Your task to perform on an android device: see tabs open on other devices in the chrome app Image 0: 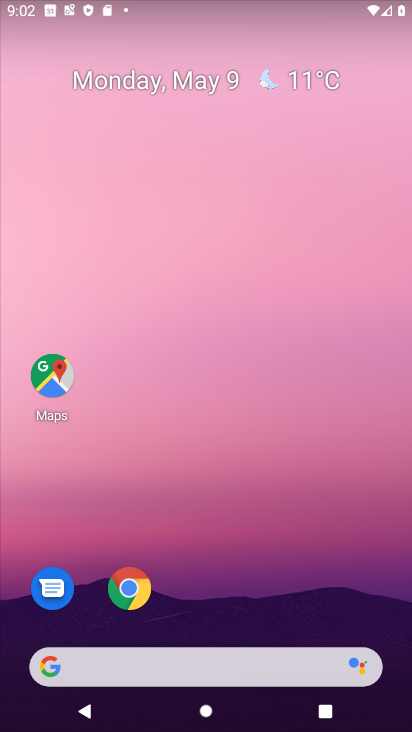
Step 0: drag from (173, 667) to (257, 148)
Your task to perform on an android device: see tabs open on other devices in the chrome app Image 1: 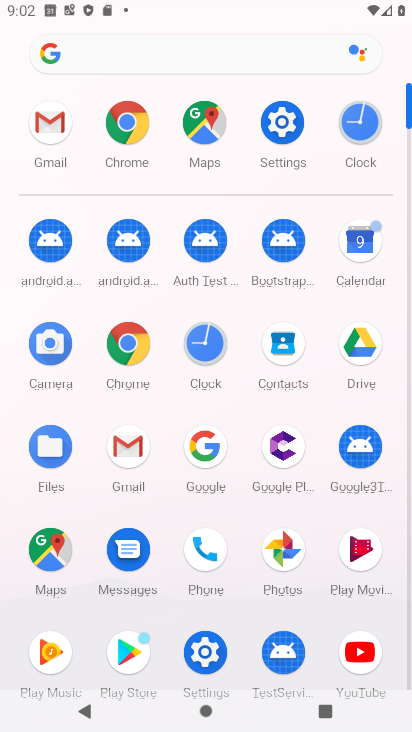
Step 1: click (128, 125)
Your task to perform on an android device: see tabs open on other devices in the chrome app Image 2: 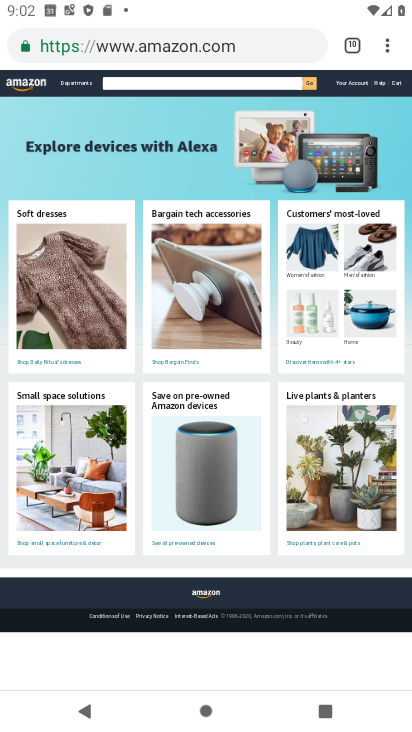
Step 2: task complete